Your task to perform on an android device: Open the Play Movies app and select the watchlist tab. Image 0: 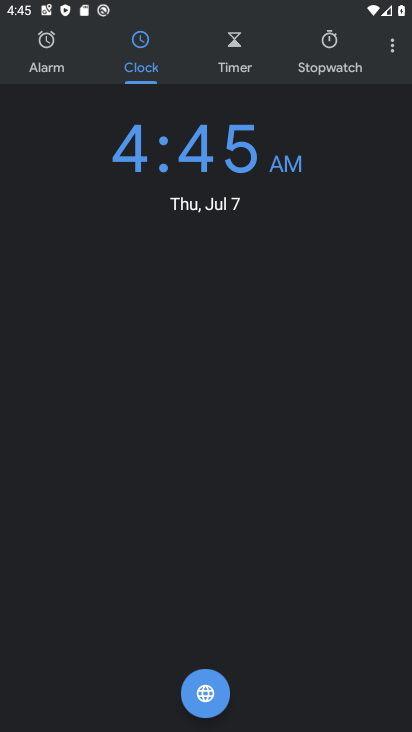
Step 0: press home button
Your task to perform on an android device: Open the Play Movies app and select the watchlist tab. Image 1: 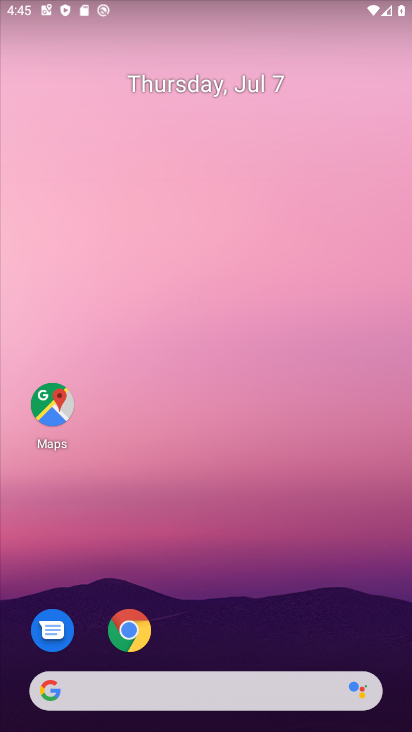
Step 1: drag from (236, 466) to (239, 119)
Your task to perform on an android device: Open the Play Movies app and select the watchlist tab. Image 2: 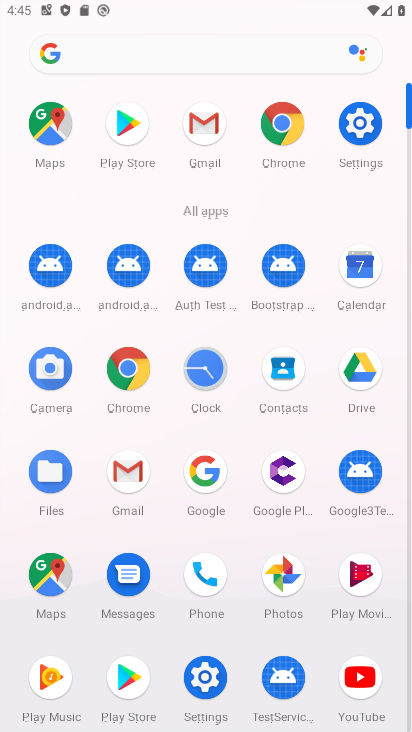
Step 2: click (366, 559)
Your task to perform on an android device: Open the Play Movies app and select the watchlist tab. Image 3: 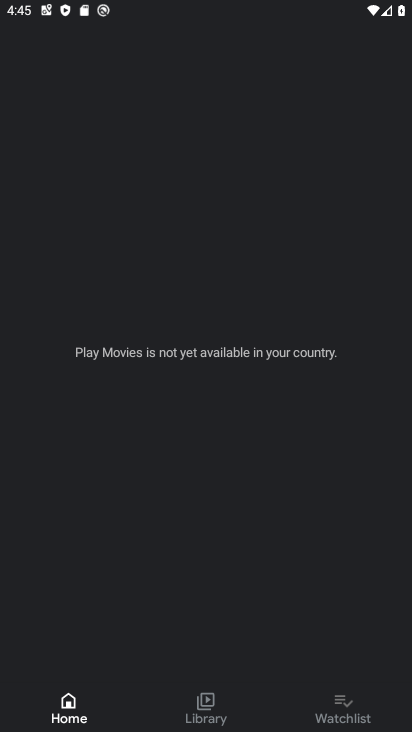
Step 3: click (335, 702)
Your task to perform on an android device: Open the Play Movies app and select the watchlist tab. Image 4: 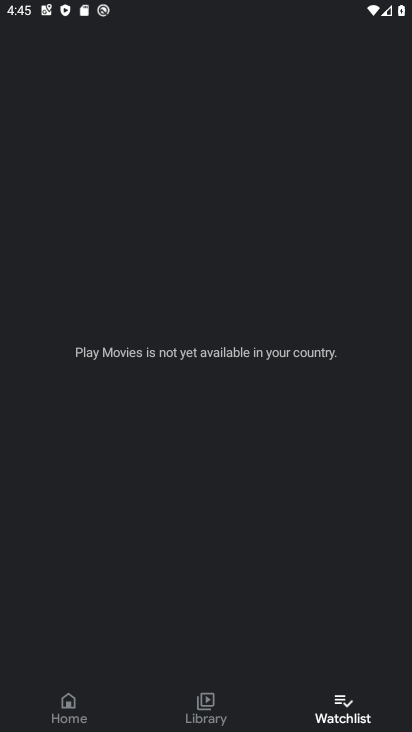
Step 4: task complete